Your task to perform on an android device: turn notification dots on Image 0: 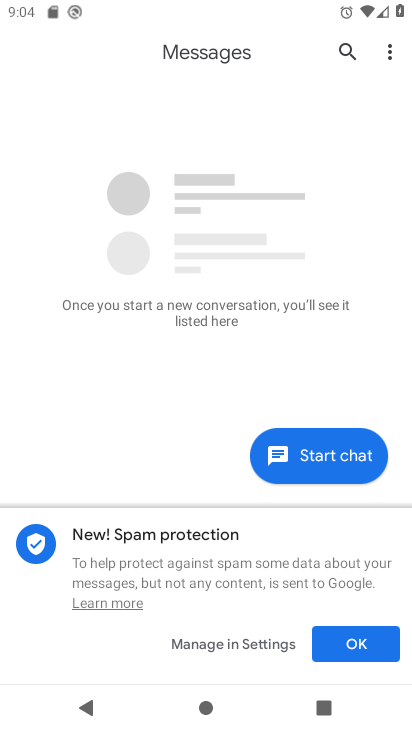
Step 0: press home button
Your task to perform on an android device: turn notification dots on Image 1: 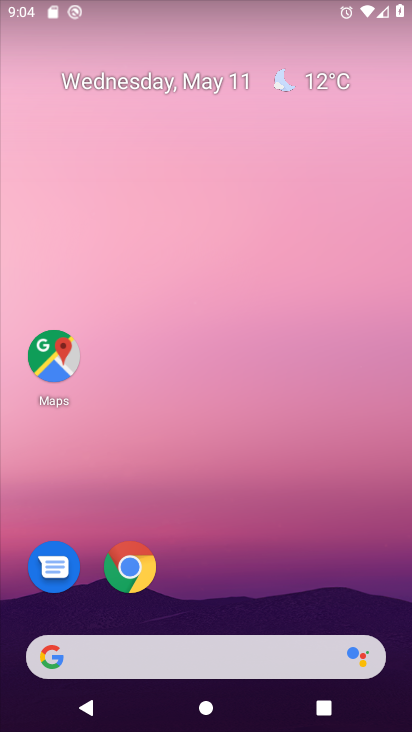
Step 1: drag from (280, 563) to (209, 53)
Your task to perform on an android device: turn notification dots on Image 2: 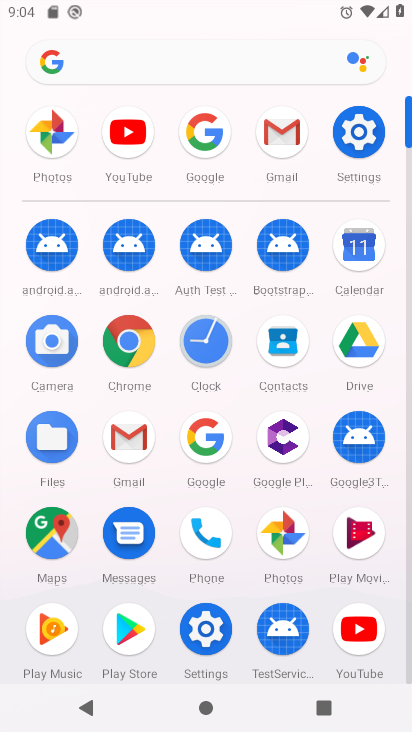
Step 2: click (360, 135)
Your task to perform on an android device: turn notification dots on Image 3: 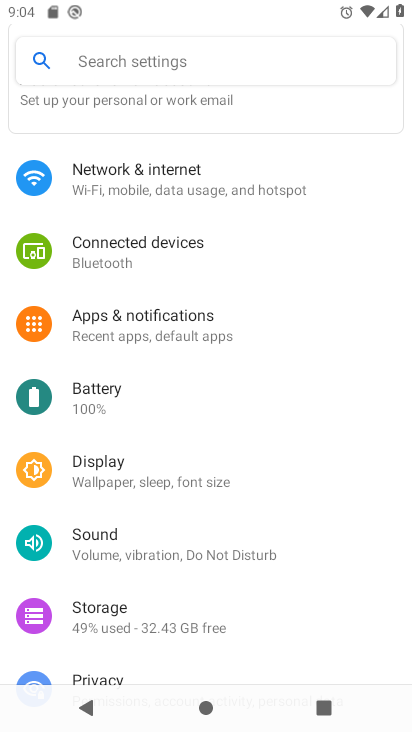
Step 3: click (222, 321)
Your task to perform on an android device: turn notification dots on Image 4: 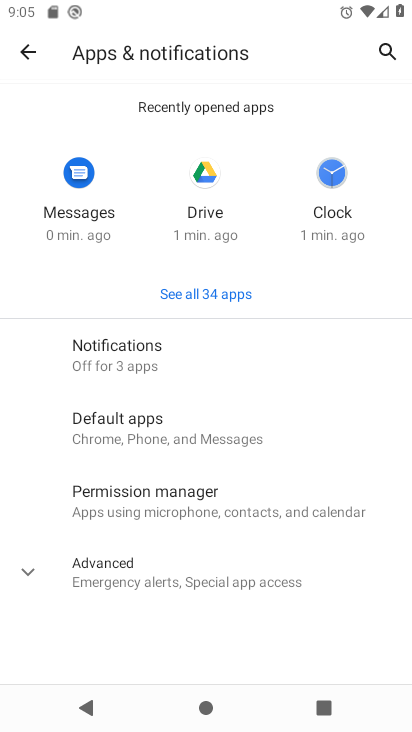
Step 4: click (172, 360)
Your task to perform on an android device: turn notification dots on Image 5: 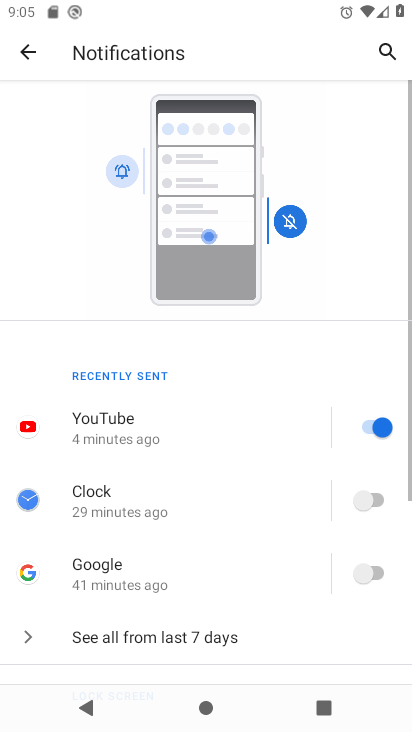
Step 5: drag from (231, 571) to (252, 113)
Your task to perform on an android device: turn notification dots on Image 6: 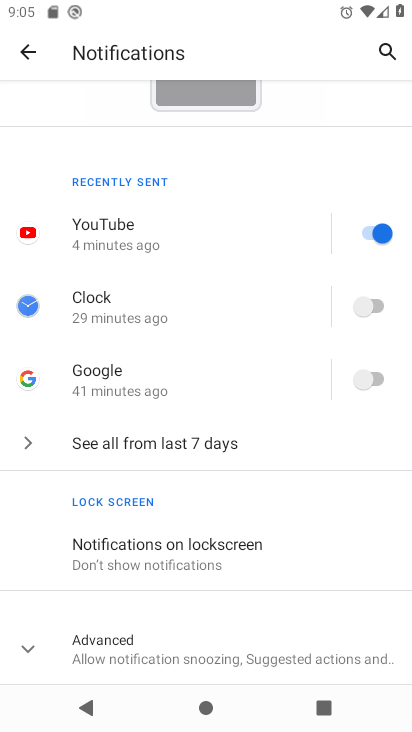
Step 6: click (194, 646)
Your task to perform on an android device: turn notification dots on Image 7: 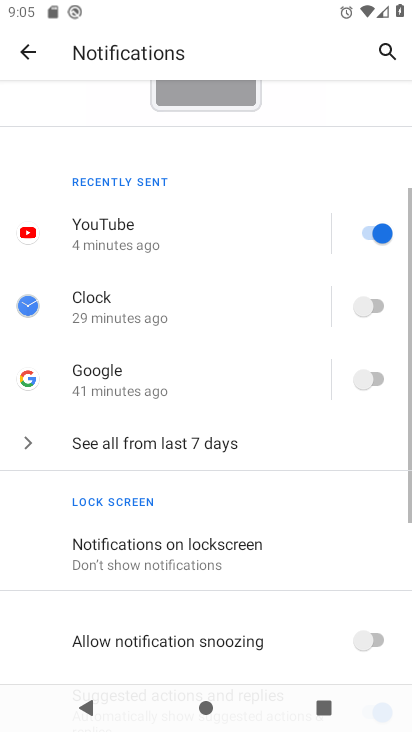
Step 7: task complete